Your task to perform on an android device: search for starred emails in the gmail app Image 0: 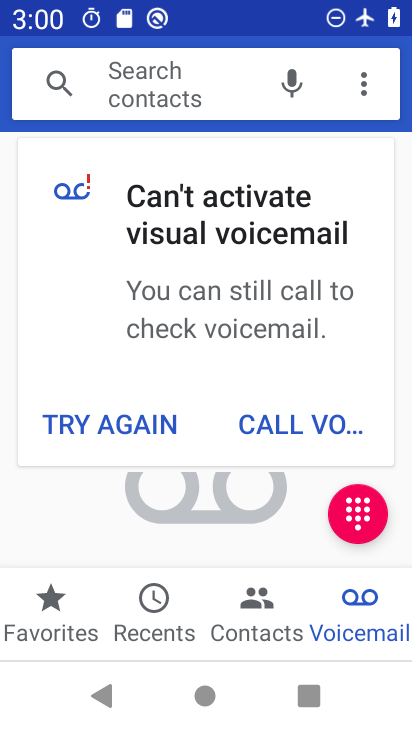
Step 0: press home button
Your task to perform on an android device: search for starred emails in the gmail app Image 1: 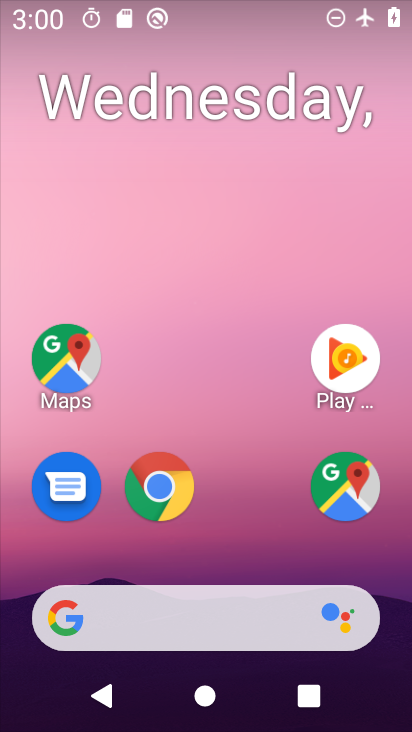
Step 1: press home button
Your task to perform on an android device: search for starred emails in the gmail app Image 2: 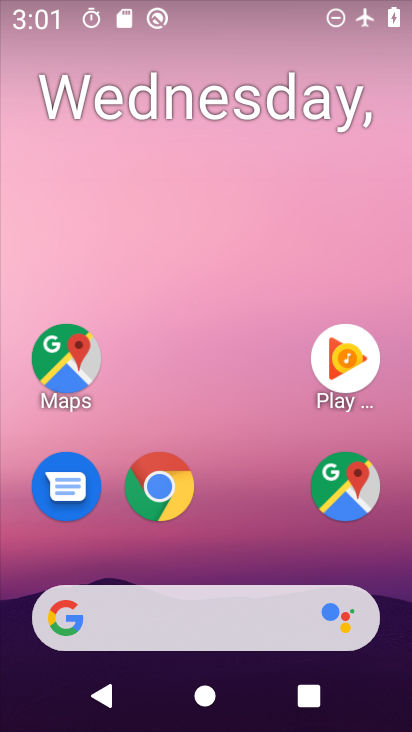
Step 2: drag from (268, 532) to (237, 34)
Your task to perform on an android device: search for starred emails in the gmail app Image 3: 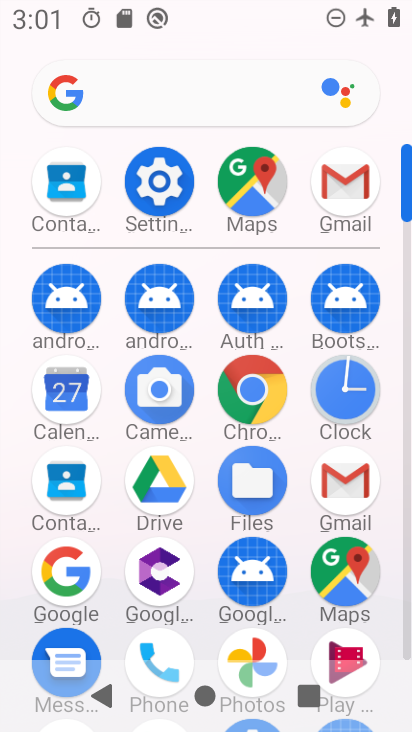
Step 3: click (343, 484)
Your task to perform on an android device: search for starred emails in the gmail app Image 4: 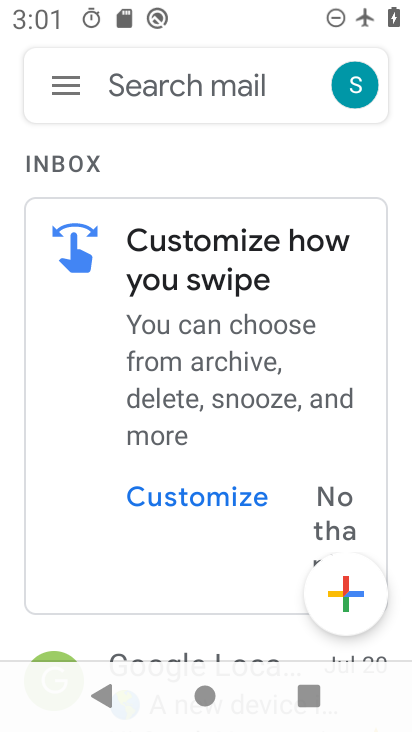
Step 4: click (68, 81)
Your task to perform on an android device: search for starred emails in the gmail app Image 5: 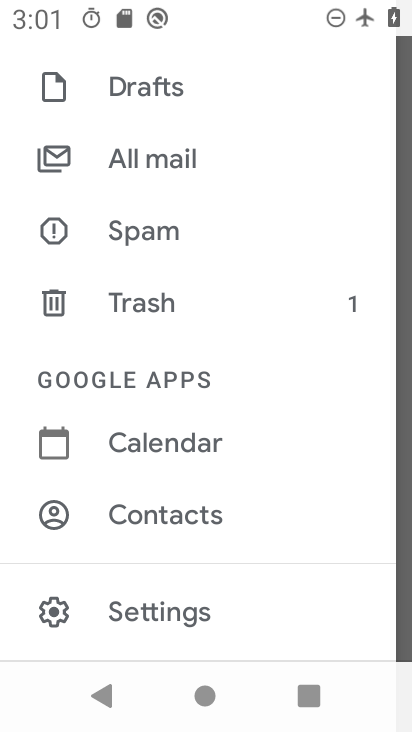
Step 5: drag from (243, 254) to (243, 356)
Your task to perform on an android device: search for starred emails in the gmail app Image 6: 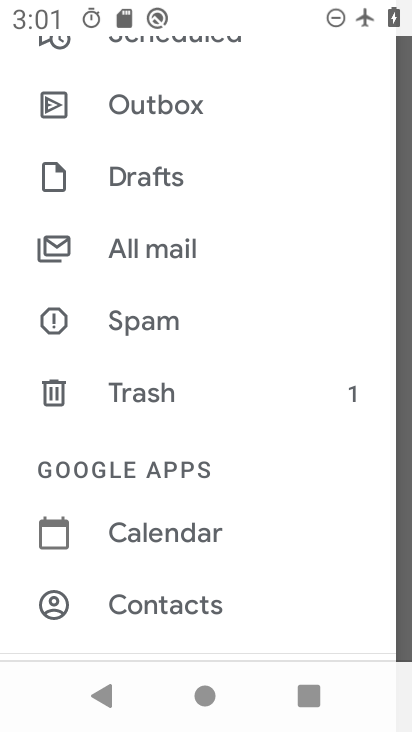
Step 6: drag from (266, 171) to (276, 280)
Your task to perform on an android device: search for starred emails in the gmail app Image 7: 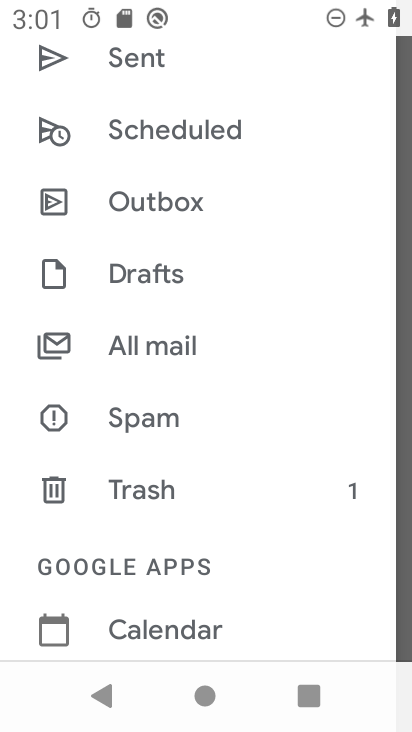
Step 7: drag from (278, 156) to (285, 252)
Your task to perform on an android device: search for starred emails in the gmail app Image 8: 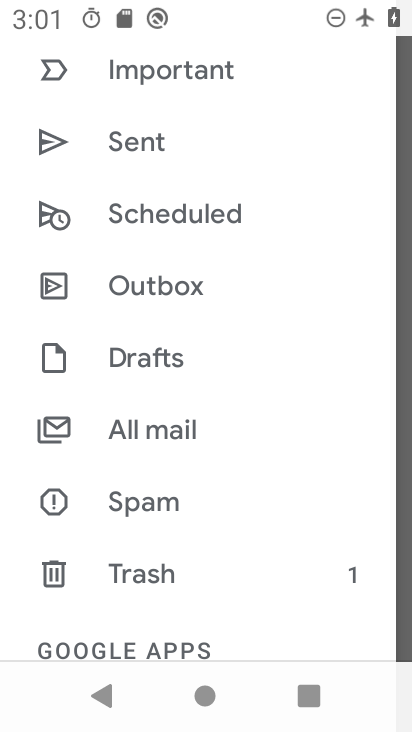
Step 8: drag from (283, 131) to (297, 260)
Your task to perform on an android device: search for starred emails in the gmail app Image 9: 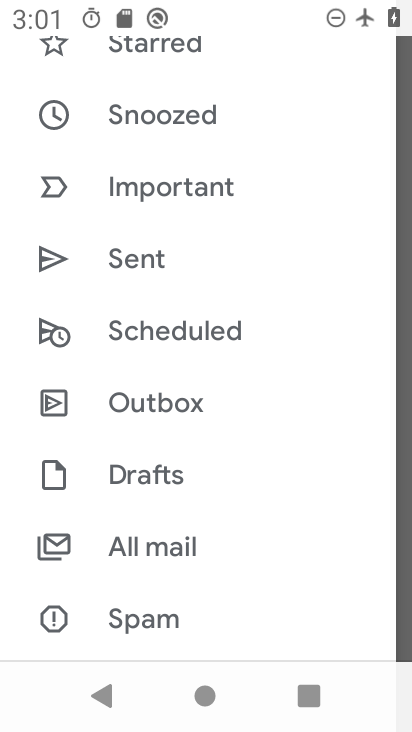
Step 9: drag from (301, 135) to (309, 264)
Your task to perform on an android device: search for starred emails in the gmail app Image 10: 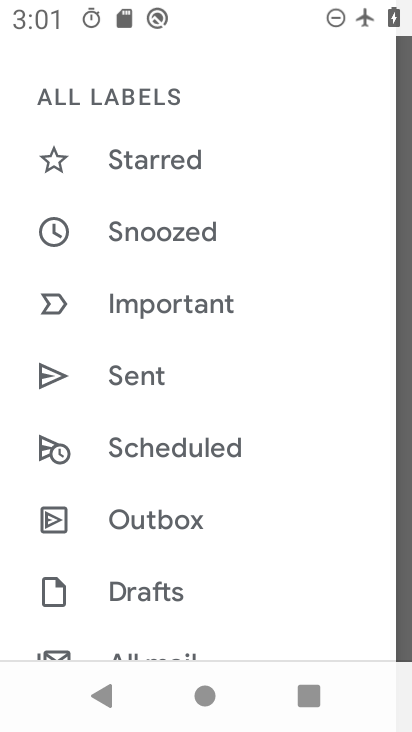
Step 10: drag from (299, 122) to (309, 383)
Your task to perform on an android device: search for starred emails in the gmail app Image 11: 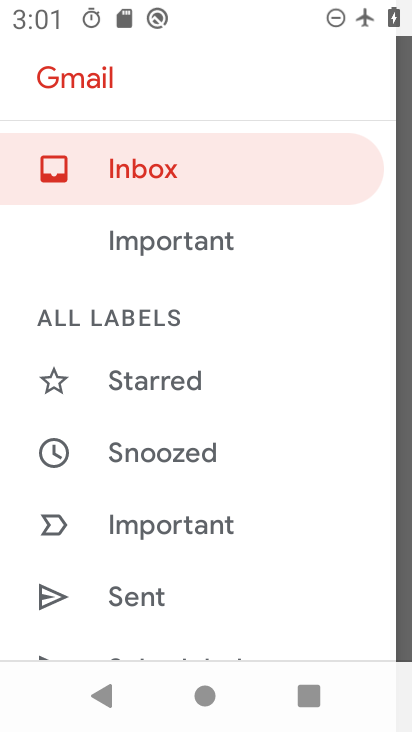
Step 11: click (247, 377)
Your task to perform on an android device: search for starred emails in the gmail app Image 12: 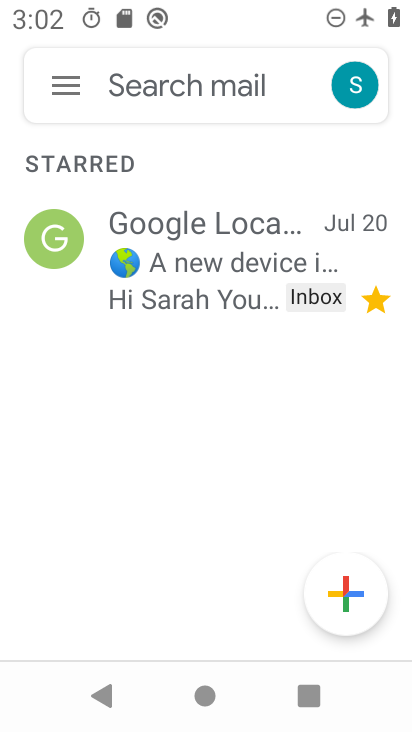
Step 12: task complete